Your task to perform on an android device: turn off airplane mode Image 0: 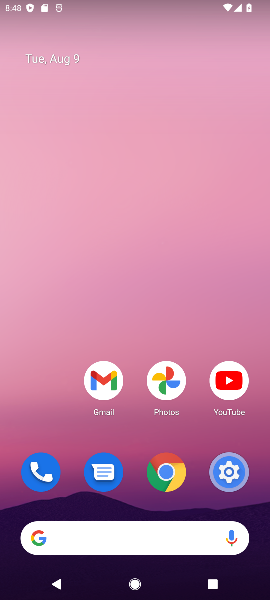
Step 0: drag from (80, 525) to (145, 284)
Your task to perform on an android device: turn off airplane mode Image 1: 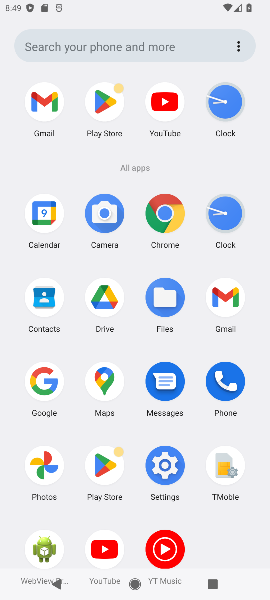
Step 1: click (179, 472)
Your task to perform on an android device: turn off airplane mode Image 2: 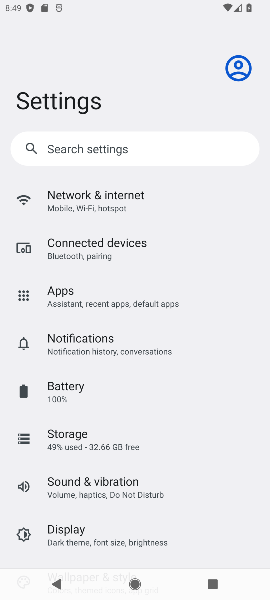
Step 2: click (114, 206)
Your task to perform on an android device: turn off airplane mode Image 3: 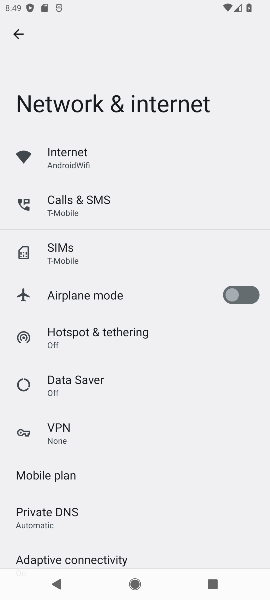
Step 3: task complete